Your task to perform on an android device: Do I have any events tomorrow? Image 0: 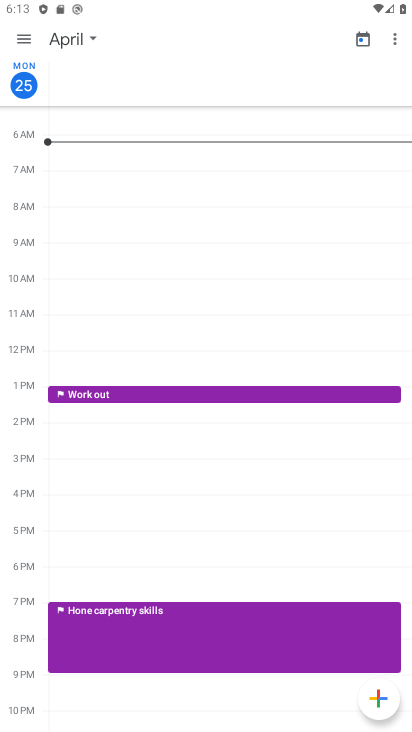
Step 0: task complete